Your task to perform on an android device: stop showing notifications on the lock screen Image 0: 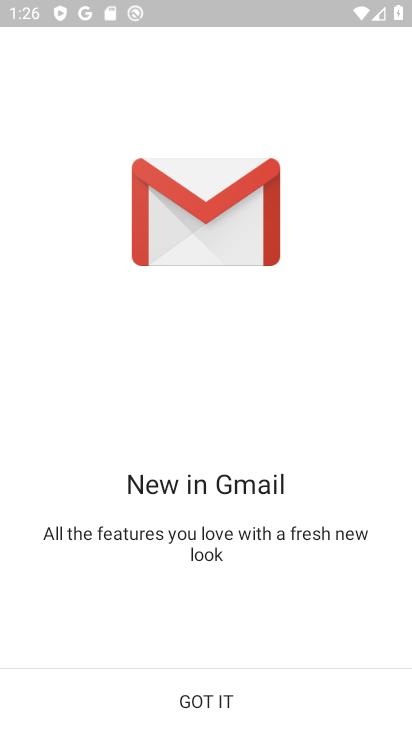
Step 0: press home button
Your task to perform on an android device: stop showing notifications on the lock screen Image 1: 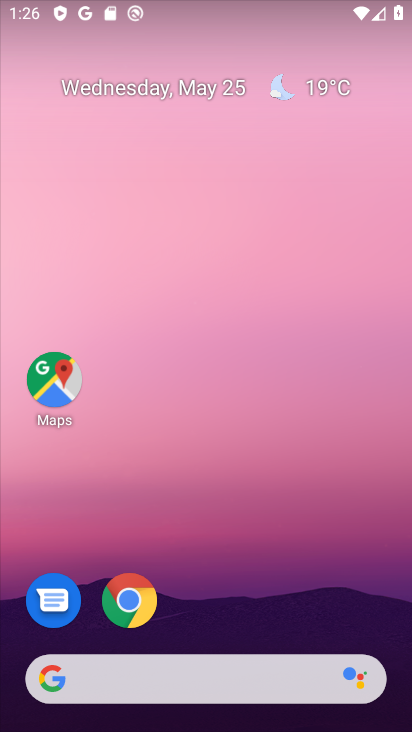
Step 1: drag from (199, 649) to (271, 217)
Your task to perform on an android device: stop showing notifications on the lock screen Image 2: 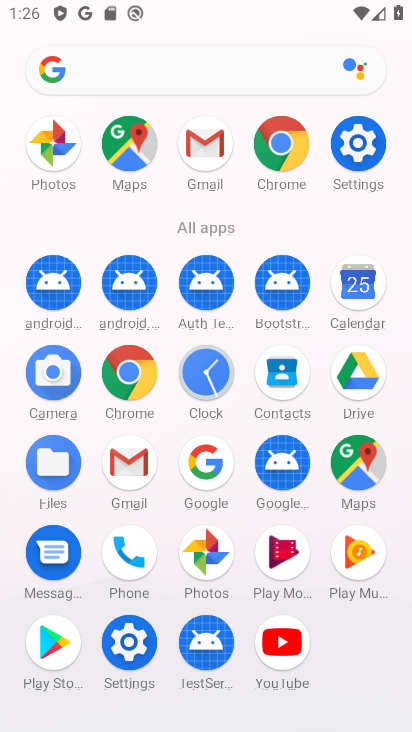
Step 2: click (135, 658)
Your task to perform on an android device: stop showing notifications on the lock screen Image 3: 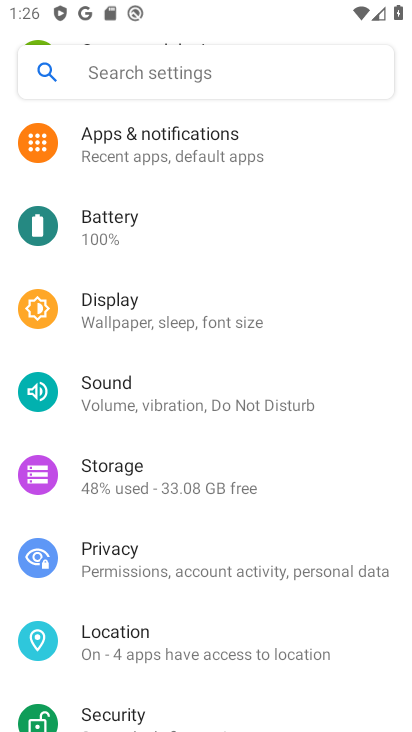
Step 3: click (210, 157)
Your task to perform on an android device: stop showing notifications on the lock screen Image 4: 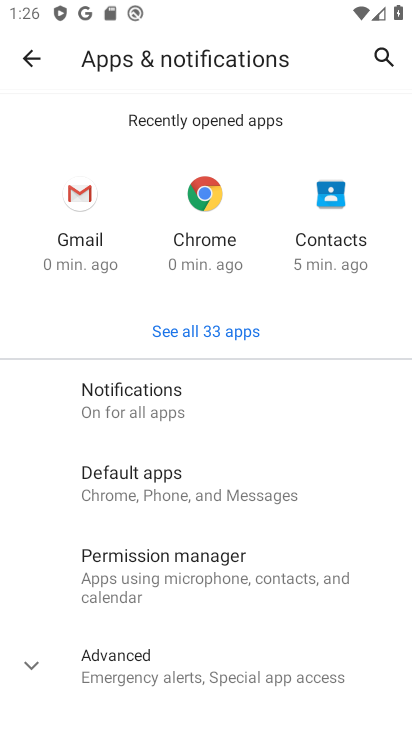
Step 4: click (207, 421)
Your task to perform on an android device: stop showing notifications on the lock screen Image 5: 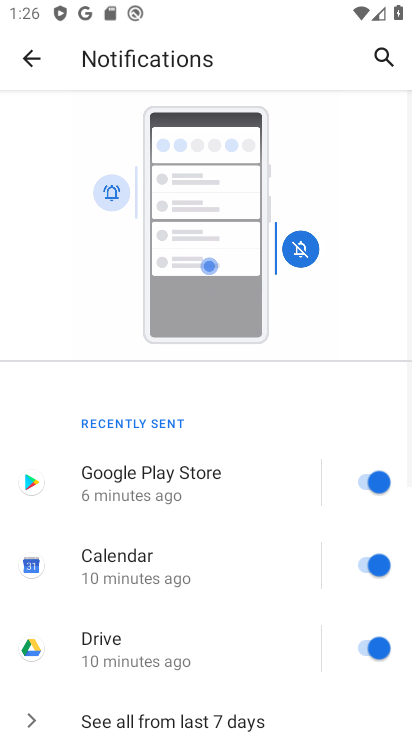
Step 5: drag from (203, 605) to (289, 224)
Your task to perform on an android device: stop showing notifications on the lock screen Image 6: 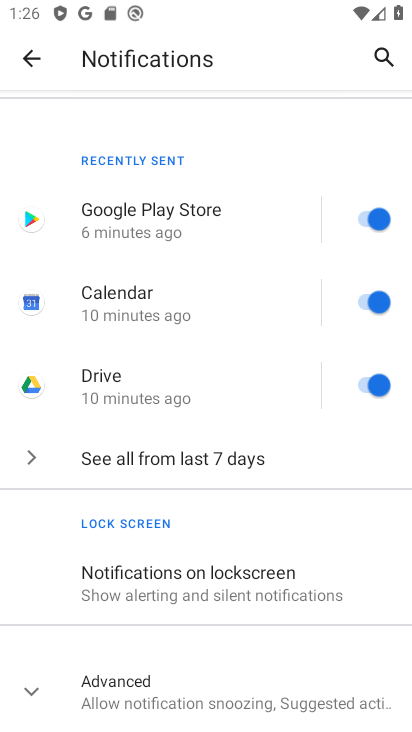
Step 6: click (206, 578)
Your task to perform on an android device: stop showing notifications on the lock screen Image 7: 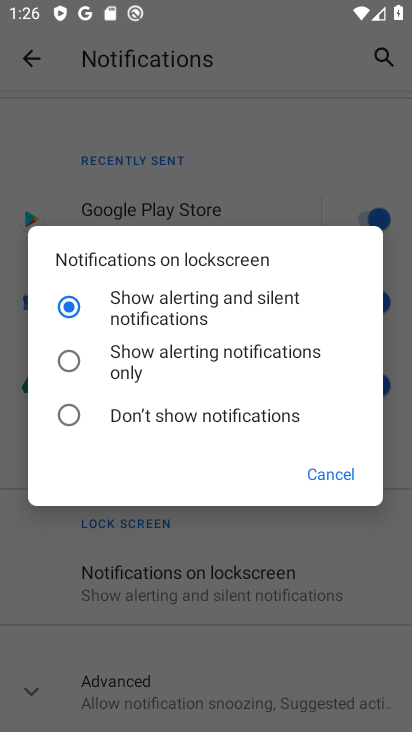
Step 7: click (228, 420)
Your task to perform on an android device: stop showing notifications on the lock screen Image 8: 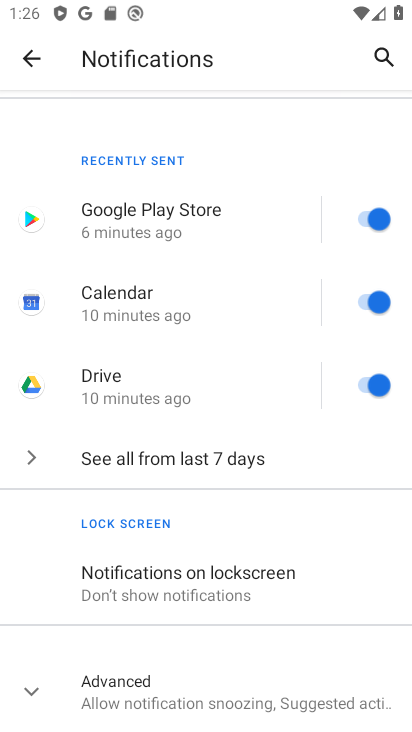
Step 8: task complete